Your task to perform on an android device: Open wifi settings Image 0: 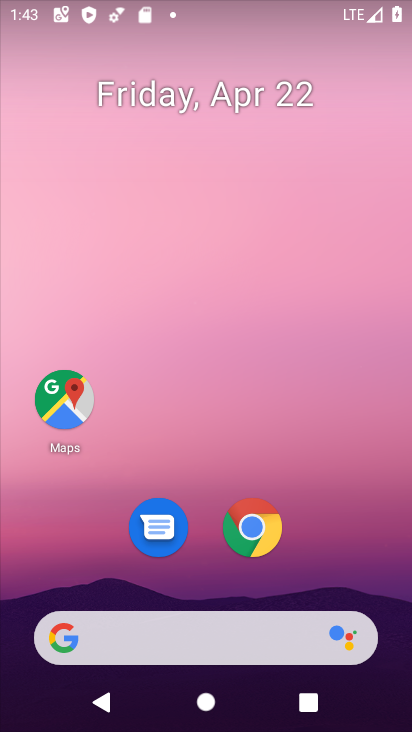
Step 0: drag from (345, 542) to (149, 134)
Your task to perform on an android device: Open wifi settings Image 1: 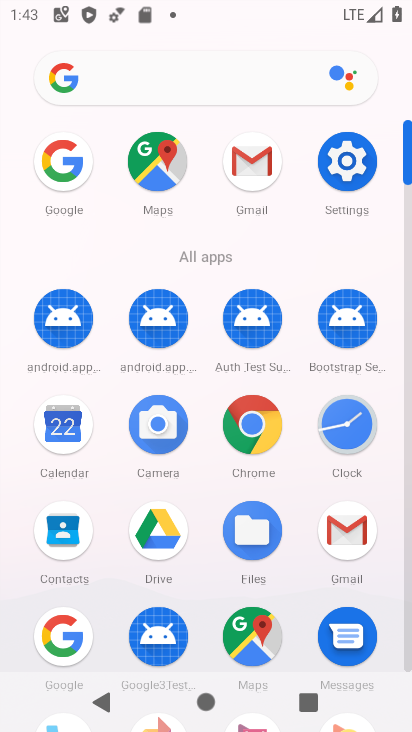
Step 1: click (338, 164)
Your task to perform on an android device: Open wifi settings Image 2: 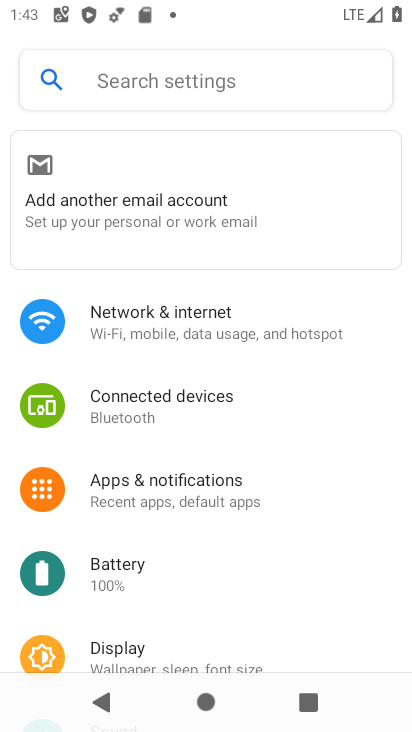
Step 2: click (125, 318)
Your task to perform on an android device: Open wifi settings Image 3: 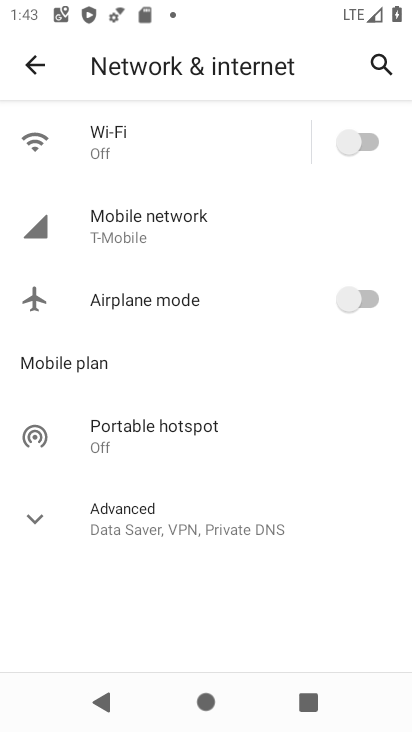
Step 3: click (107, 159)
Your task to perform on an android device: Open wifi settings Image 4: 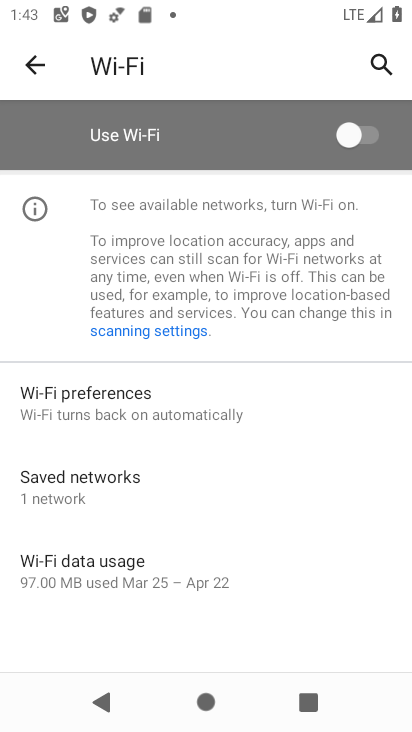
Step 4: task complete